Your task to perform on an android device: turn off picture-in-picture Image 0: 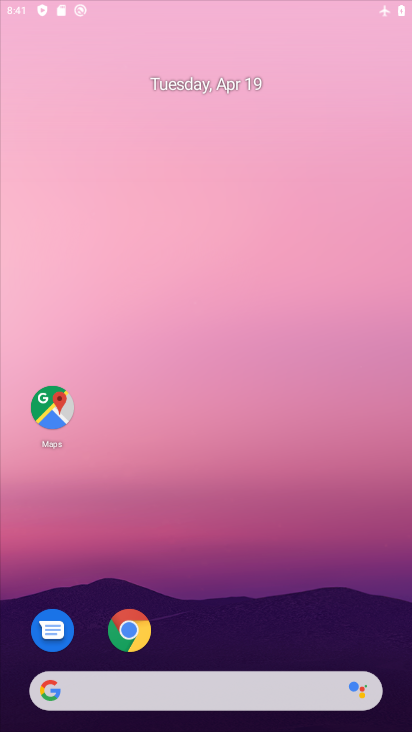
Step 0: click (276, 96)
Your task to perform on an android device: turn off picture-in-picture Image 1: 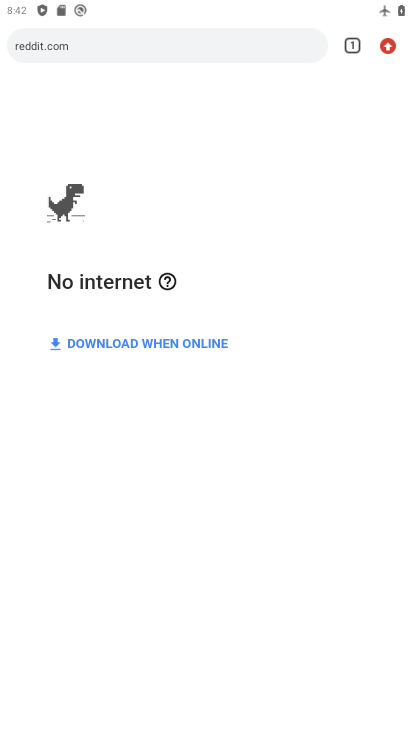
Step 1: click (276, 92)
Your task to perform on an android device: turn off picture-in-picture Image 2: 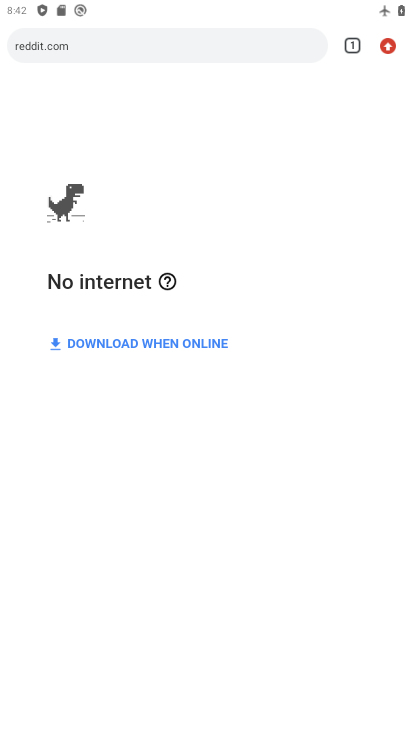
Step 2: click (376, 145)
Your task to perform on an android device: turn off picture-in-picture Image 3: 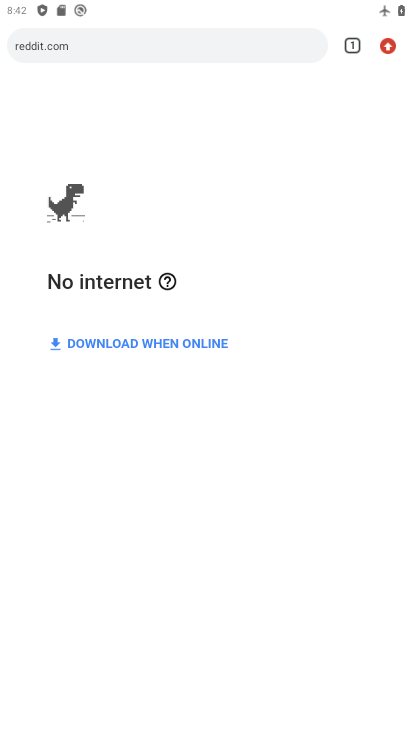
Step 3: press home button
Your task to perform on an android device: turn off picture-in-picture Image 4: 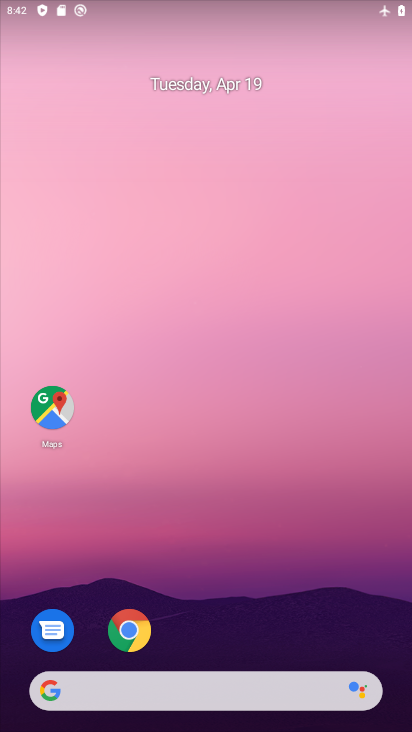
Step 4: drag from (236, 669) to (330, 220)
Your task to perform on an android device: turn off picture-in-picture Image 5: 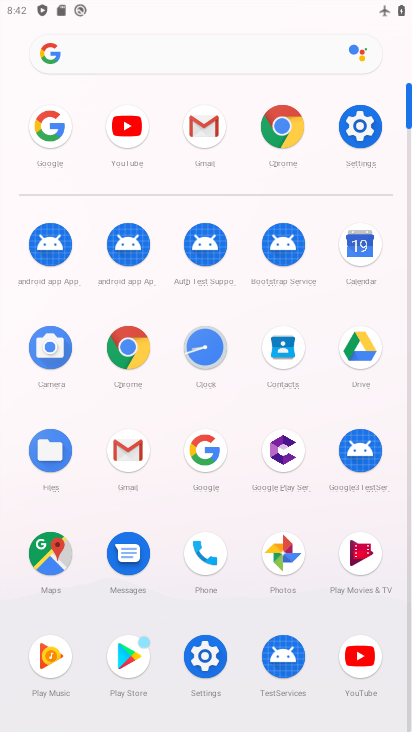
Step 5: click (374, 134)
Your task to perform on an android device: turn off picture-in-picture Image 6: 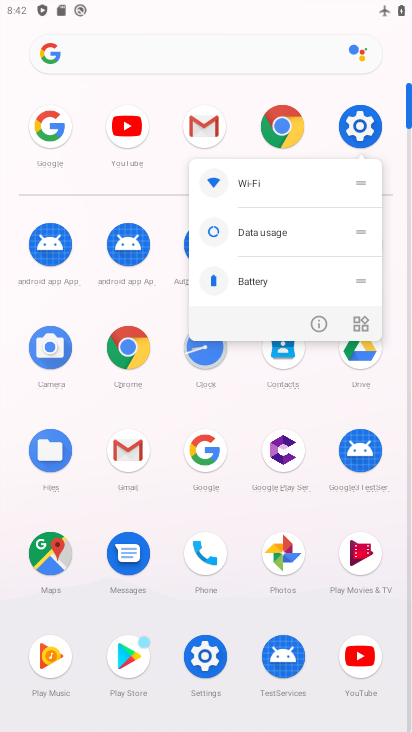
Step 6: click (360, 147)
Your task to perform on an android device: turn off picture-in-picture Image 7: 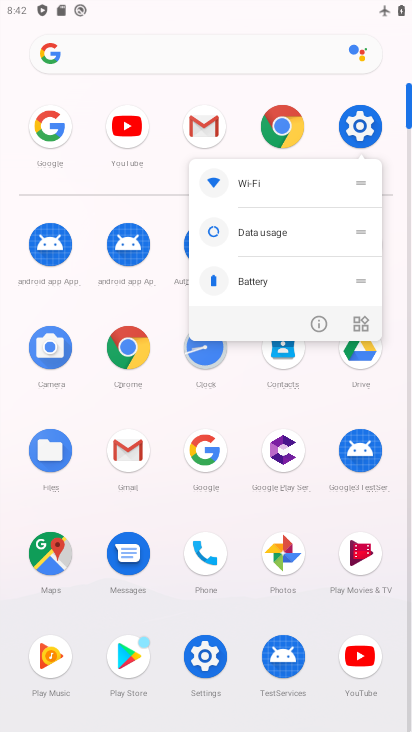
Step 7: click (366, 122)
Your task to perform on an android device: turn off picture-in-picture Image 8: 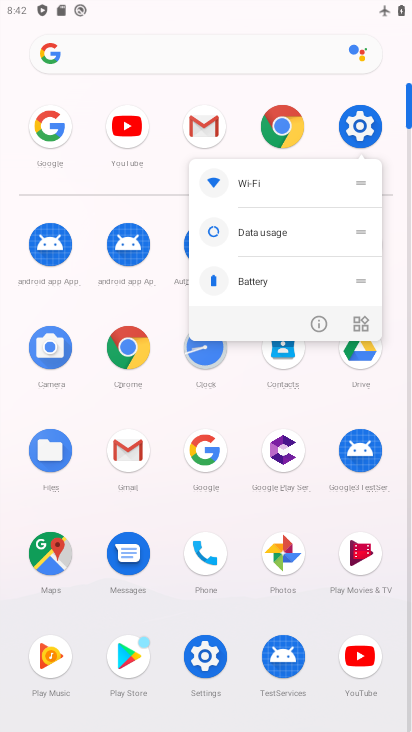
Step 8: click (367, 124)
Your task to perform on an android device: turn off picture-in-picture Image 9: 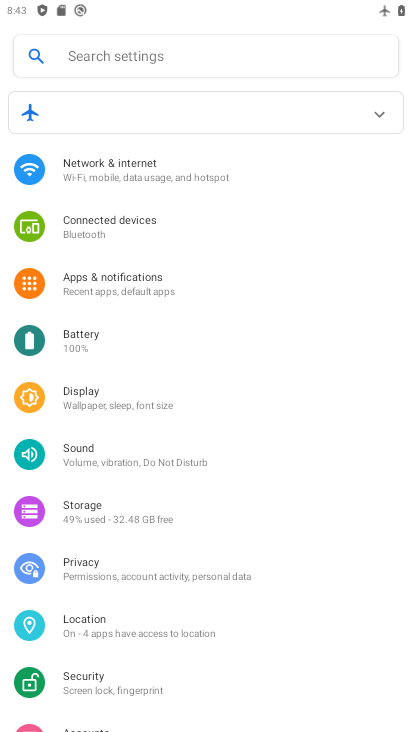
Step 9: click (133, 291)
Your task to perform on an android device: turn off picture-in-picture Image 10: 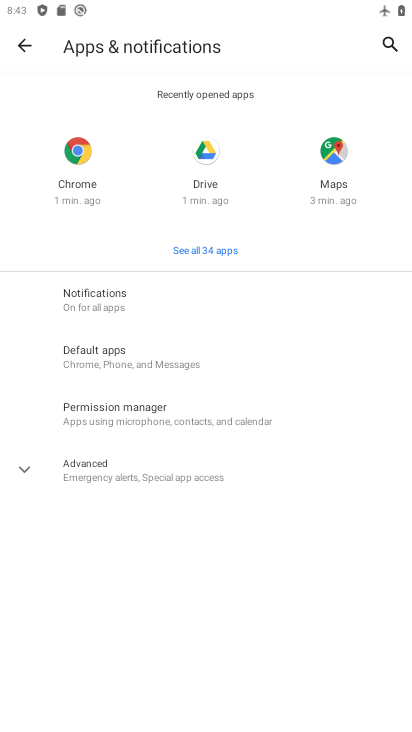
Step 10: click (109, 467)
Your task to perform on an android device: turn off picture-in-picture Image 11: 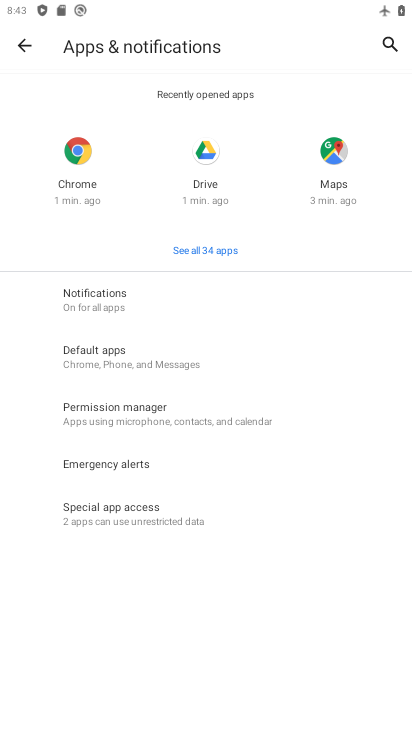
Step 11: click (140, 507)
Your task to perform on an android device: turn off picture-in-picture Image 12: 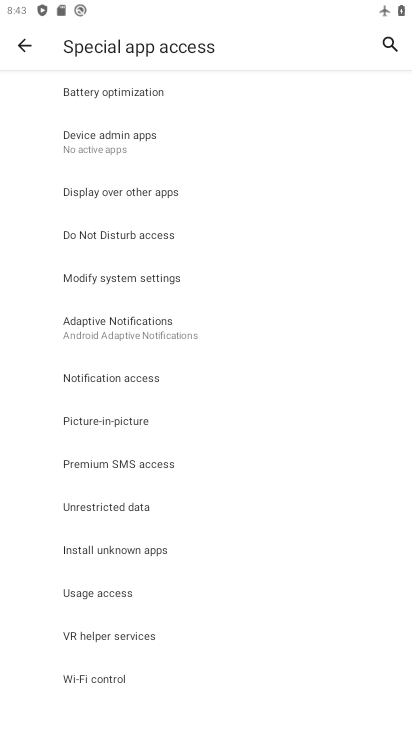
Step 12: click (140, 418)
Your task to perform on an android device: turn off picture-in-picture Image 13: 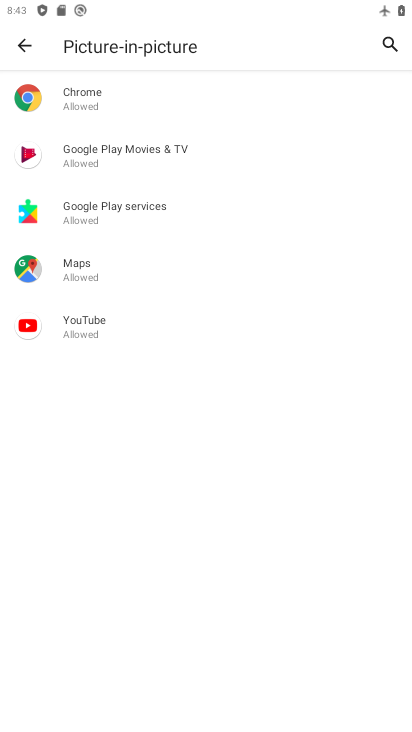
Step 13: click (127, 104)
Your task to perform on an android device: turn off picture-in-picture Image 14: 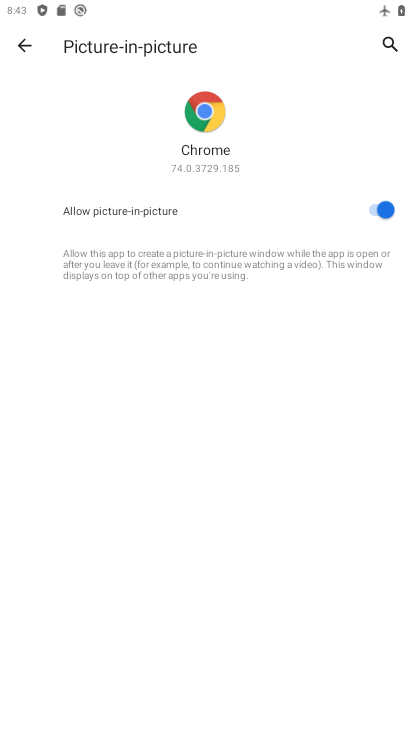
Step 14: click (367, 212)
Your task to perform on an android device: turn off picture-in-picture Image 15: 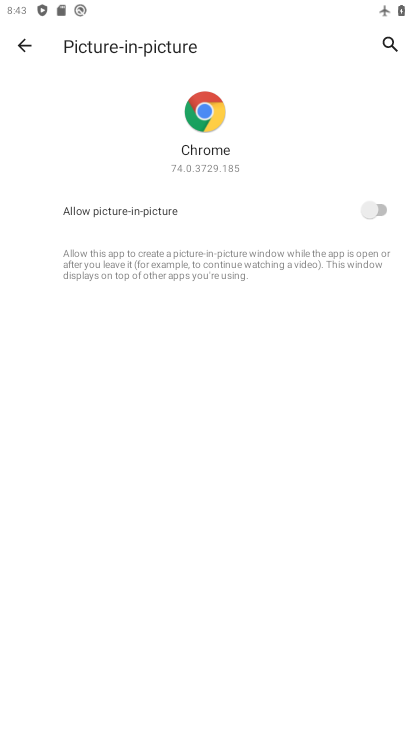
Step 15: task complete